Your task to perform on an android device: turn pop-ups off in chrome Image 0: 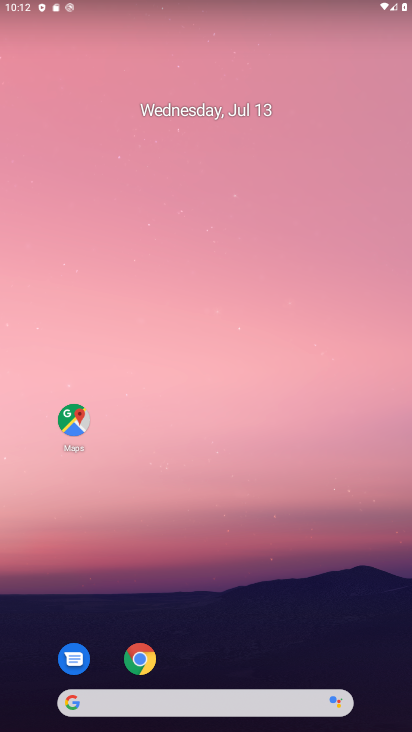
Step 0: click (154, 671)
Your task to perform on an android device: turn pop-ups off in chrome Image 1: 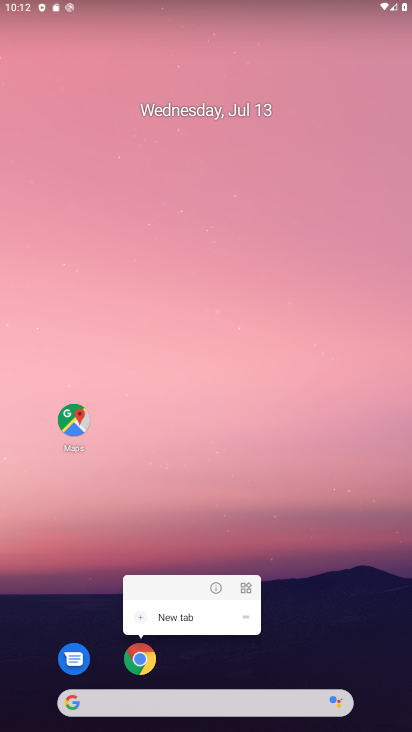
Step 1: click (147, 677)
Your task to perform on an android device: turn pop-ups off in chrome Image 2: 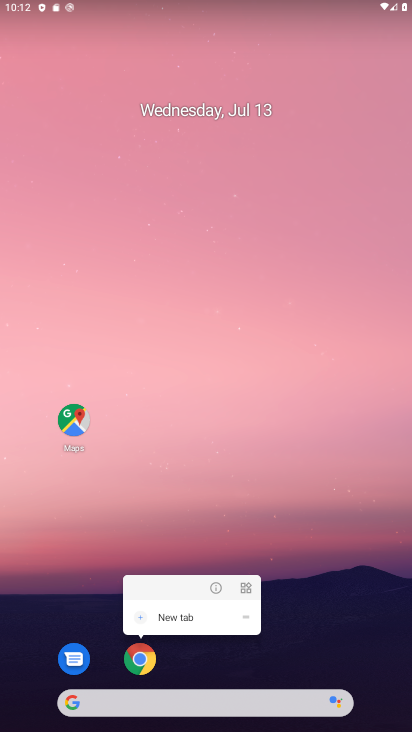
Step 2: click (146, 673)
Your task to perform on an android device: turn pop-ups off in chrome Image 3: 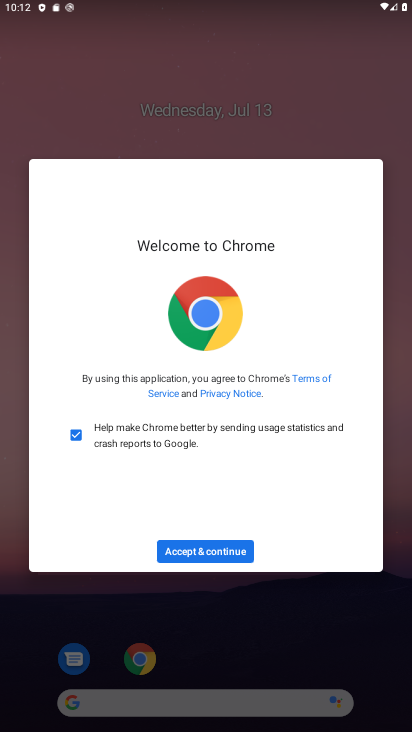
Step 3: click (210, 546)
Your task to perform on an android device: turn pop-ups off in chrome Image 4: 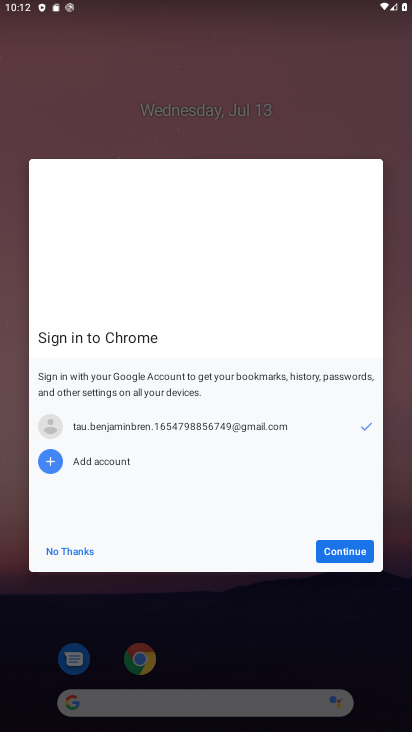
Step 4: click (340, 545)
Your task to perform on an android device: turn pop-ups off in chrome Image 5: 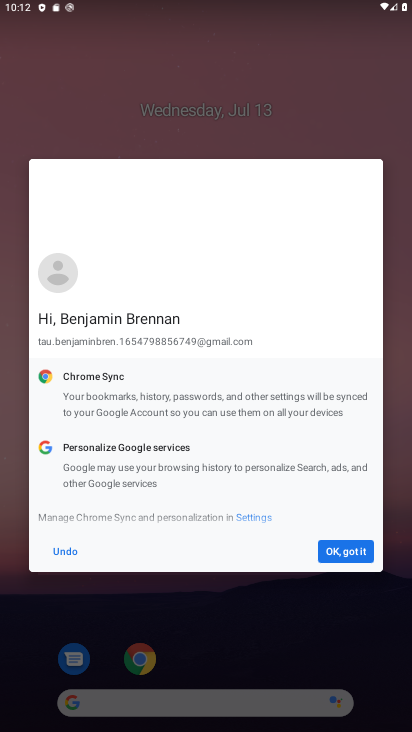
Step 5: click (340, 545)
Your task to perform on an android device: turn pop-ups off in chrome Image 6: 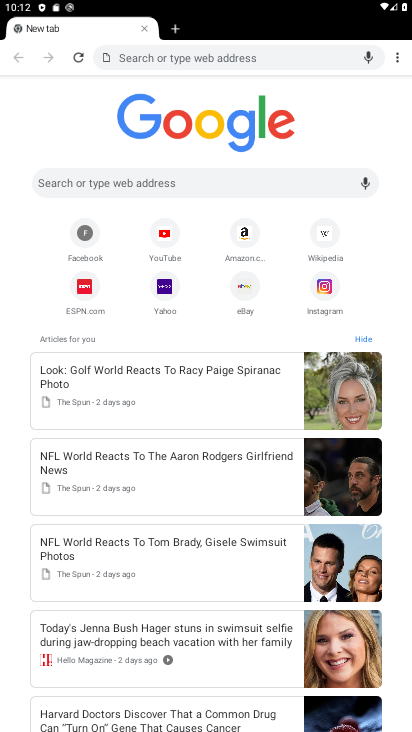
Step 6: drag from (397, 52) to (331, 261)
Your task to perform on an android device: turn pop-ups off in chrome Image 7: 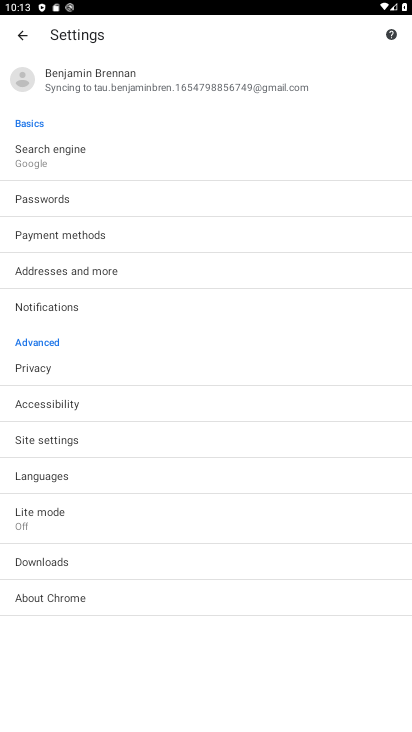
Step 7: click (69, 441)
Your task to perform on an android device: turn pop-ups off in chrome Image 8: 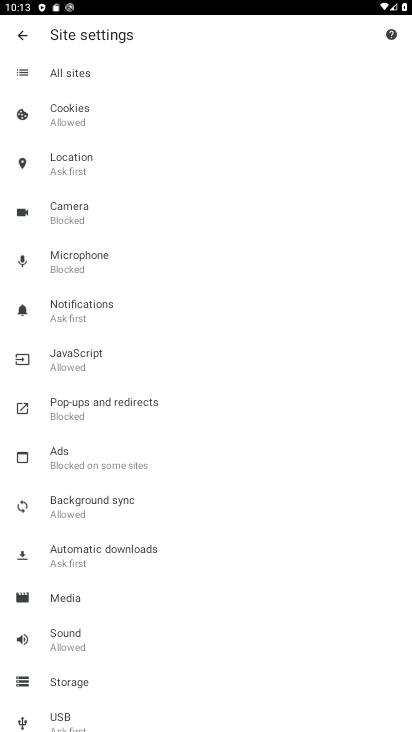
Step 8: drag from (102, 609) to (225, 434)
Your task to perform on an android device: turn pop-ups off in chrome Image 9: 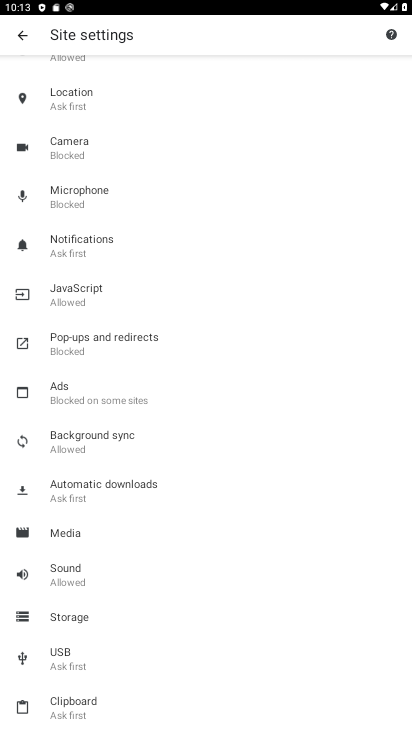
Step 9: click (201, 339)
Your task to perform on an android device: turn pop-ups off in chrome Image 10: 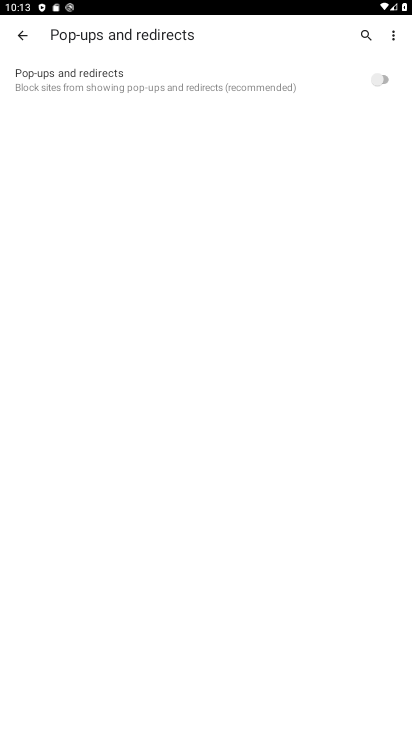
Step 10: task complete